Your task to perform on an android device: set default search engine in the chrome app Image 0: 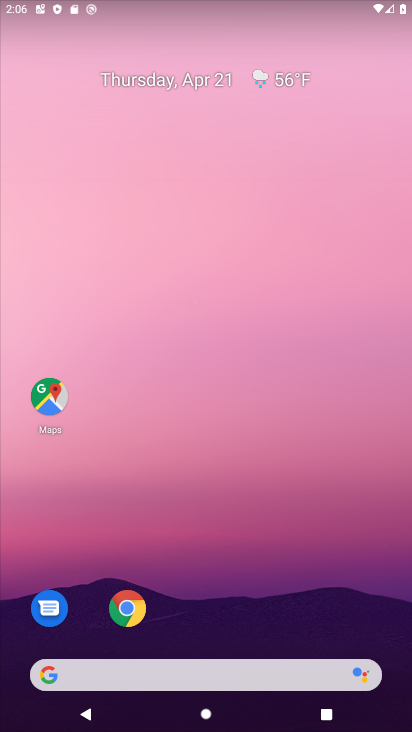
Step 0: click (120, 612)
Your task to perform on an android device: set default search engine in the chrome app Image 1: 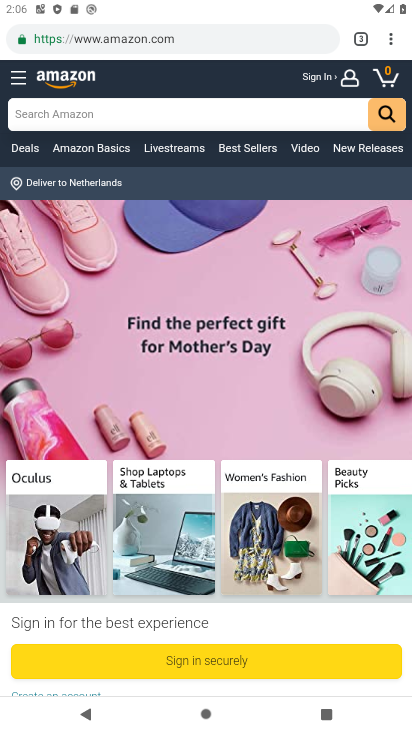
Step 1: click (386, 32)
Your task to perform on an android device: set default search engine in the chrome app Image 2: 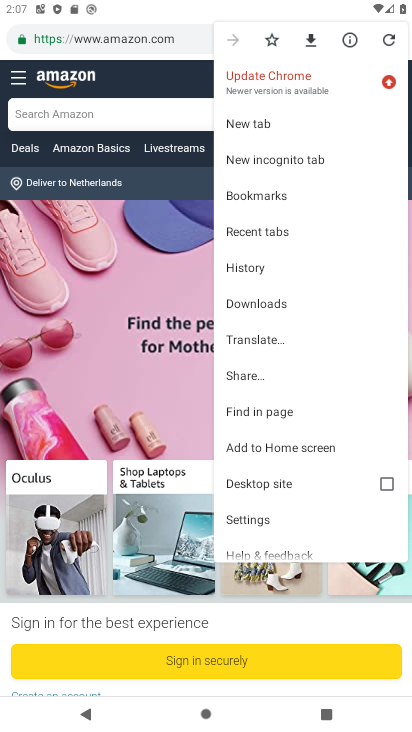
Step 2: click (264, 521)
Your task to perform on an android device: set default search engine in the chrome app Image 3: 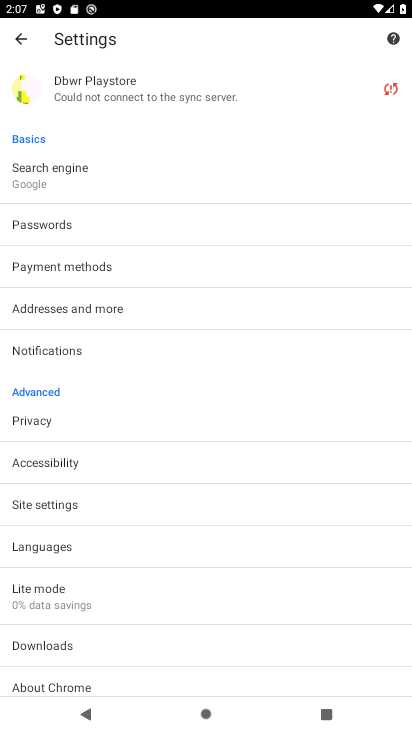
Step 3: click (67, 175)
Your task to perform on an android device: set default search engine in the chrome app Image 4: 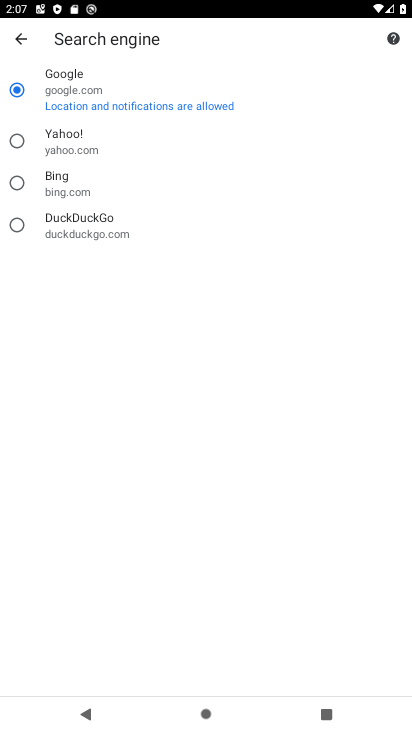
Step 4: task complete